Your task to perform on an android device: visit the assistant section in the google photos Image 0: 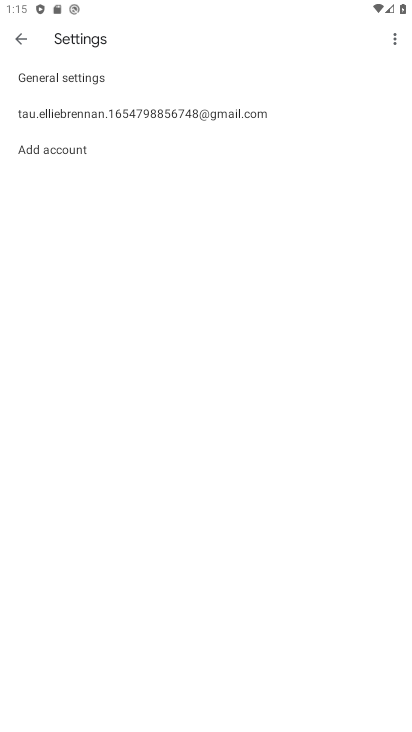
Step 0: press home button
Your task to perform on an android device: visit the assistant section in the google photos Image 1: 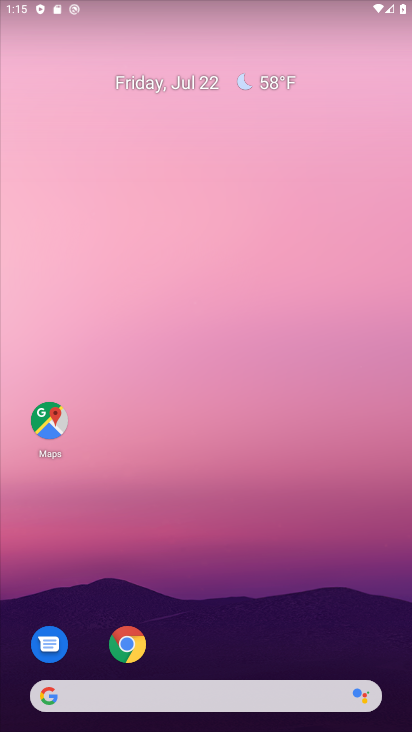
Step 1: drag from (226, 677) to (237, 206)
Your task to perform on an android device: visit the assistant section in the google photos Image 2: 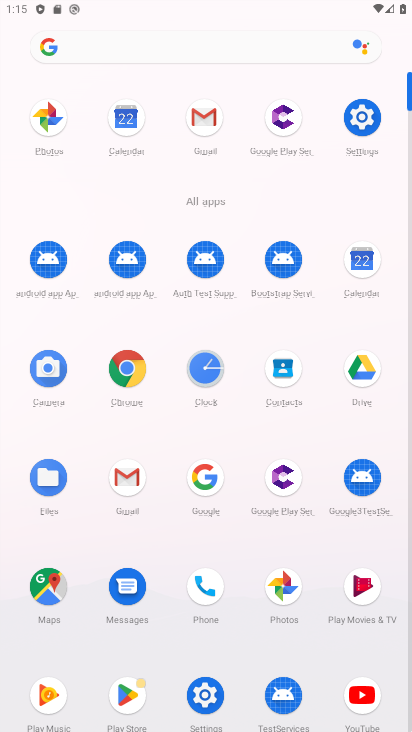
Step 2: click (273, 589)
Your task to perform on an android device: visit the assistant section in the google photos Image 3: 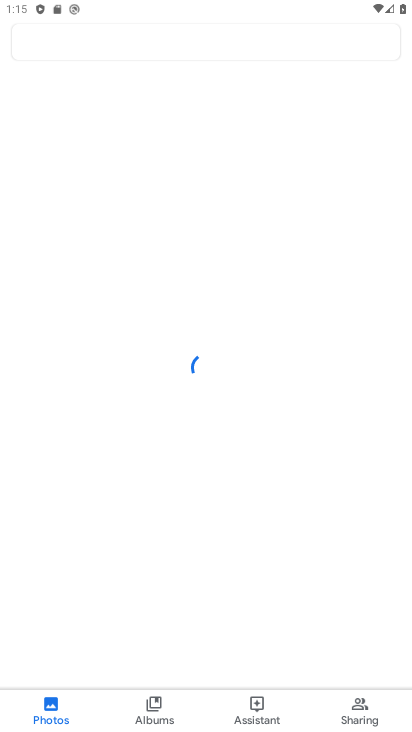
Step 3: click (267, 703)
Your task to perform on an android device: visit the assistant section in the google photos Image 4: 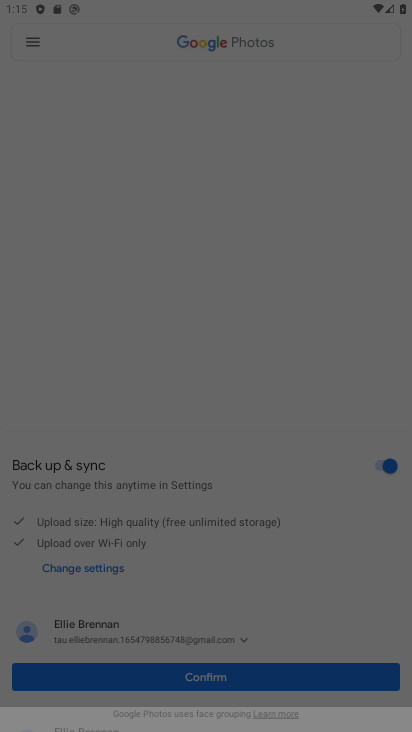
Step 4: click (183, 676)
Your task to perform on an android device: visit the assistant section in the google photos Image 5: 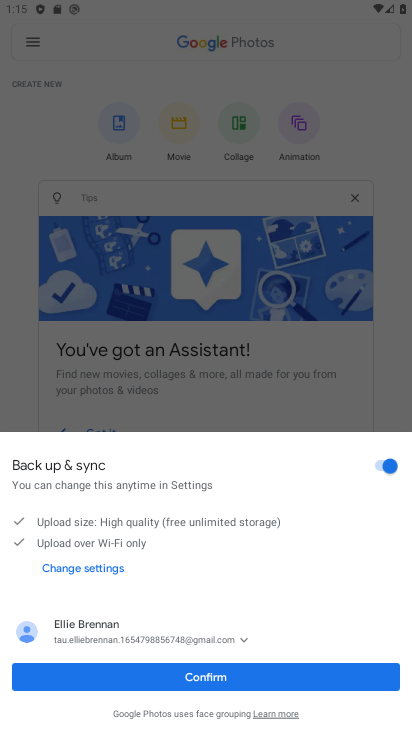
Step 5: click (207, 677)
Your task to perform on an android device: visit the assistant section in the google photos Image 6: 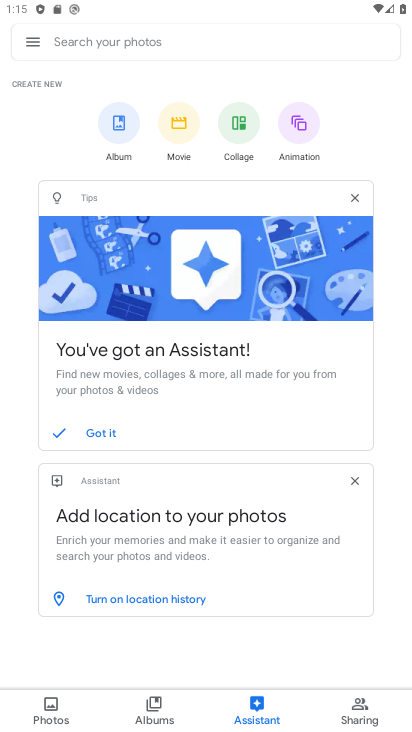
Step 6: task complete